Your task to perform on an android device: turn off wifi Image 0: 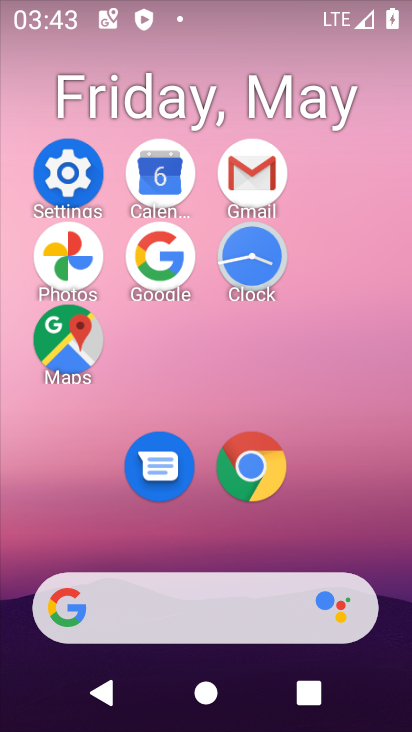
Step 0: click (61, 186)
Your task to perform on an android device: turn off wifi Image 1: 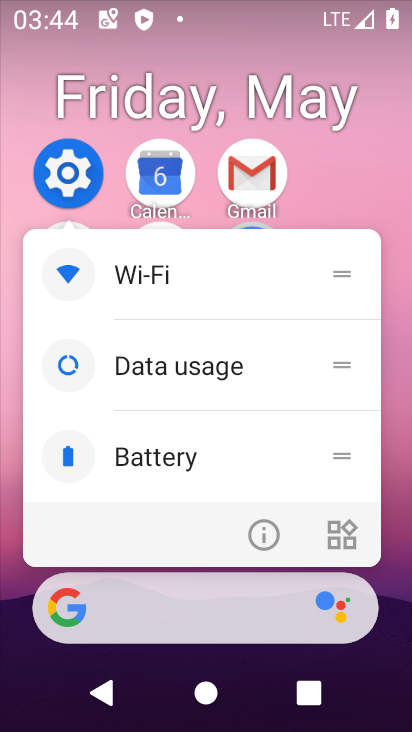
Step 1: click (170, 277)
Your task to perform on an android device: turn off wifi Image 2: 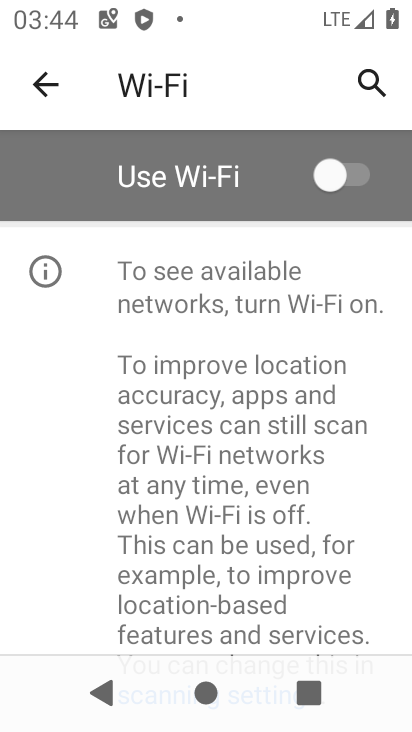
Step 2: task complete